Your task to perform on an android device: find which apps use the phone's location Image 0: 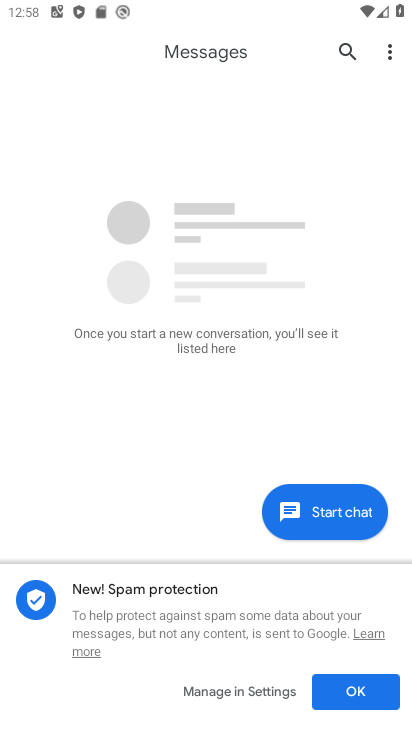
Step 0: press home button
Your task to perform on an android device: find which apps use the phone's location Image 1: 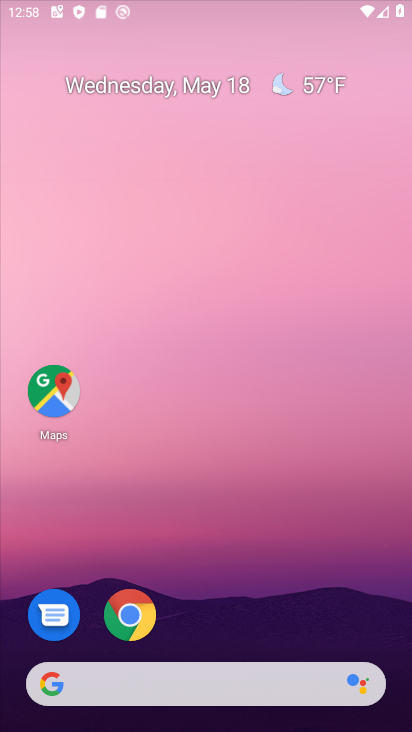
Step 1: drag from (363, 660) to (268, 30)
Your task to perform on an android device: find which apps use the phone's location Image 2: 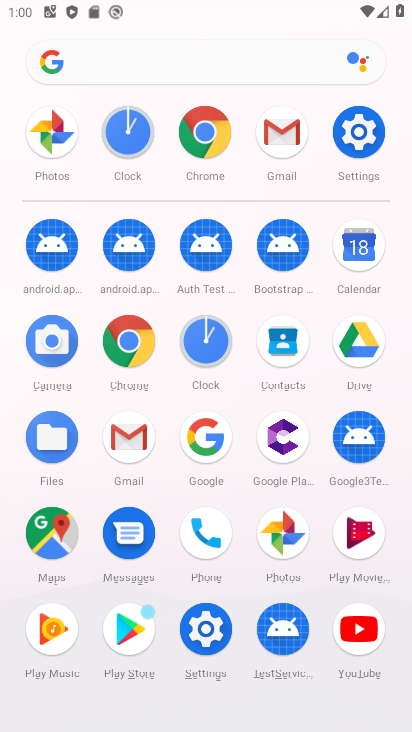
Step 2: click (363, 114)
Your task to perform on an android device: find which apps use the phone's location Image 3: 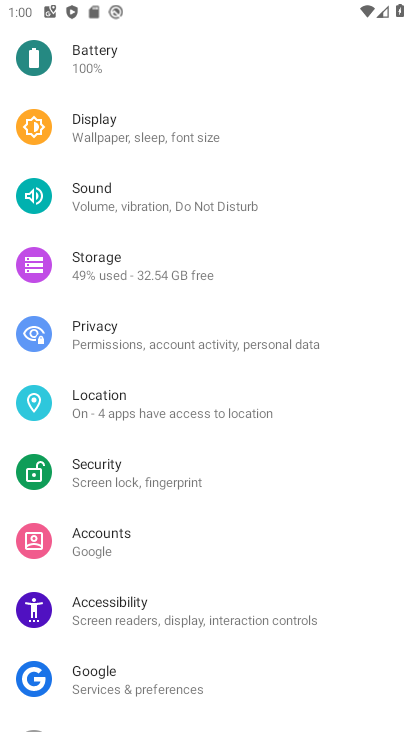
Step 3: click (108, 418)
Your task to perform on an android device: find which apps use the phone's location Image 4: 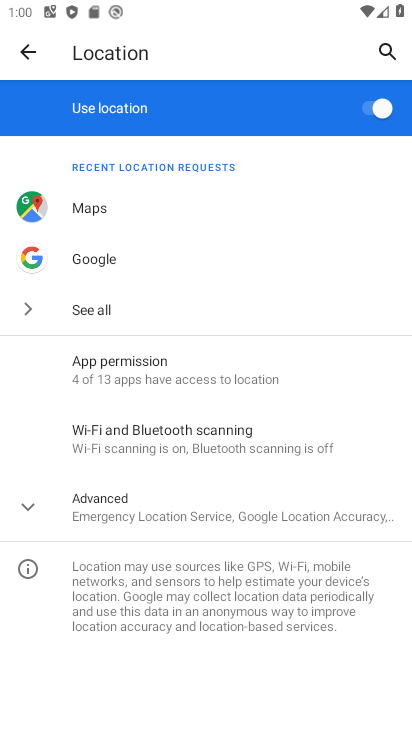
Step 4: click (128, 370)
Your task to perform on an android device: find which apps use the phone's location Image 5: 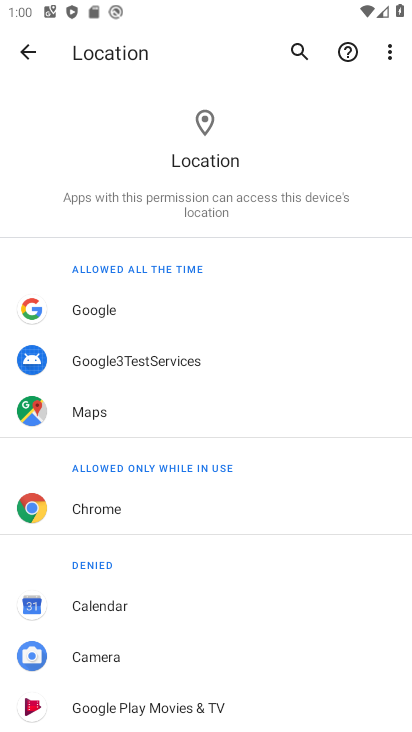
Step 5: drag from (135, 671) to (110, 198)
Your task to perform on an android device: find which apps use the phone's location Image 6: 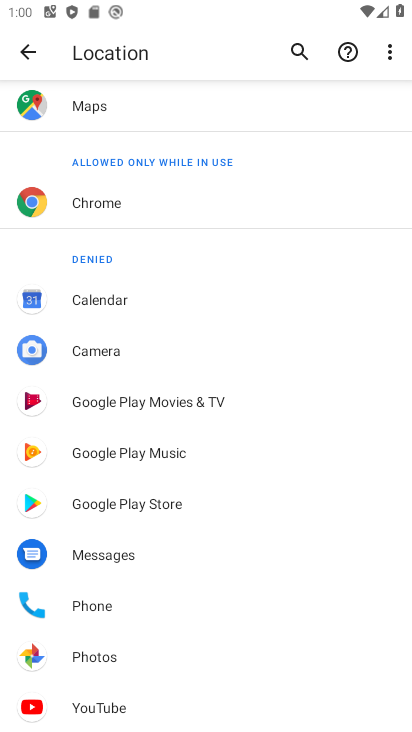
Step 6: click (147, 599)
Your task to perform on an android device: find which apps use the phone's location Image 7: 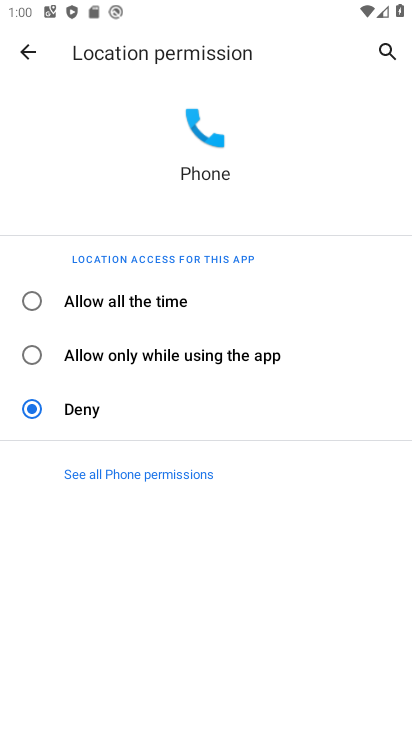
Step 7: click (53, 290)
Your task to perform on an android device: find which apps use the phone's location Image 8: 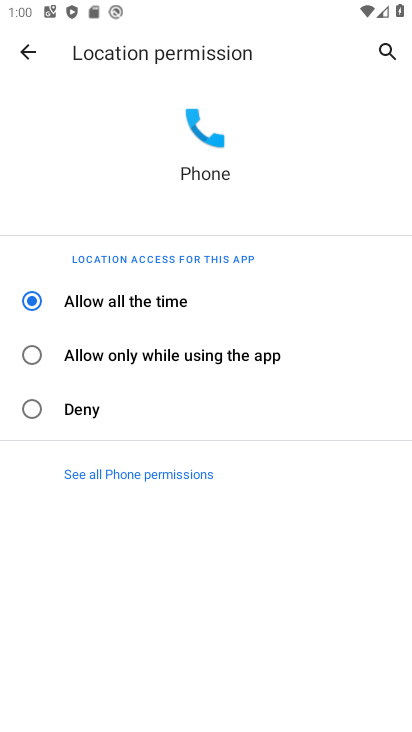
Step 8: task complete